Your task to perform on an android device: check google app version Image 0: 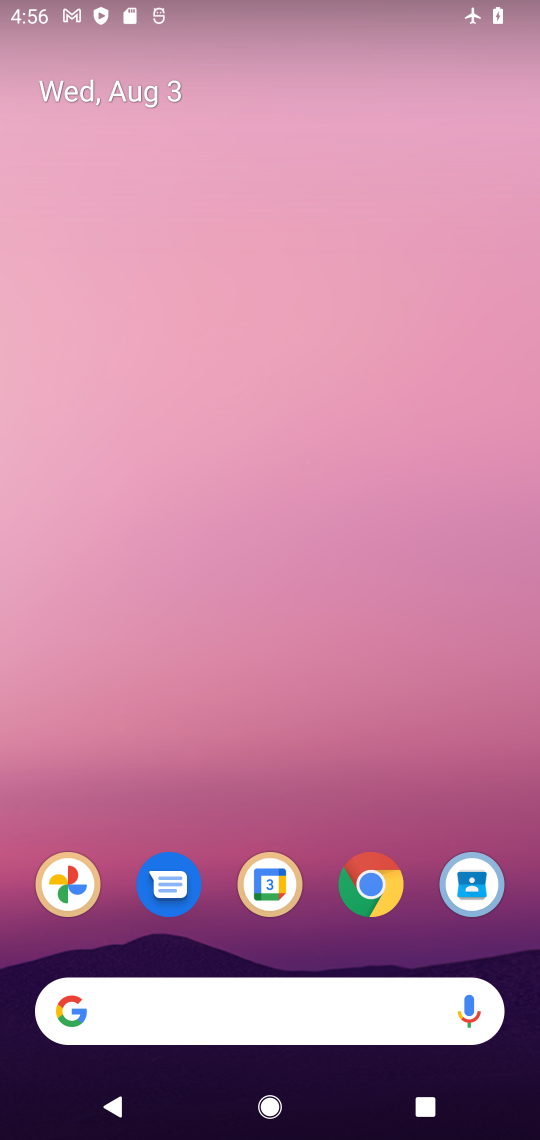
Step 0: drag from (252, 835) to (293, 1)
Your task to perform on an android device: check google app version Image 1: 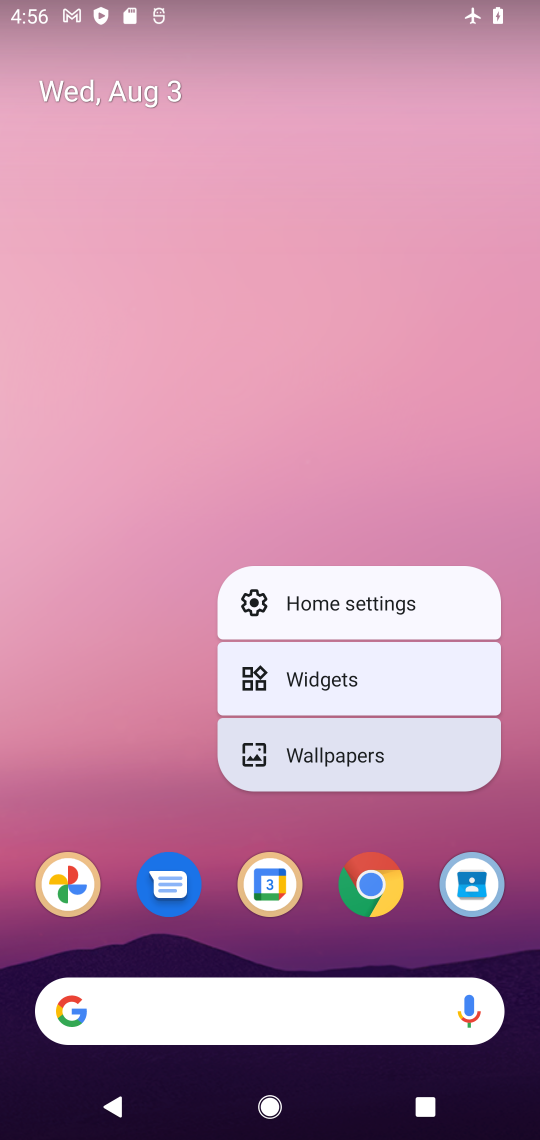
Step 1: click (66, 729)
Your task to perform on an android device: check google app version Image 2: 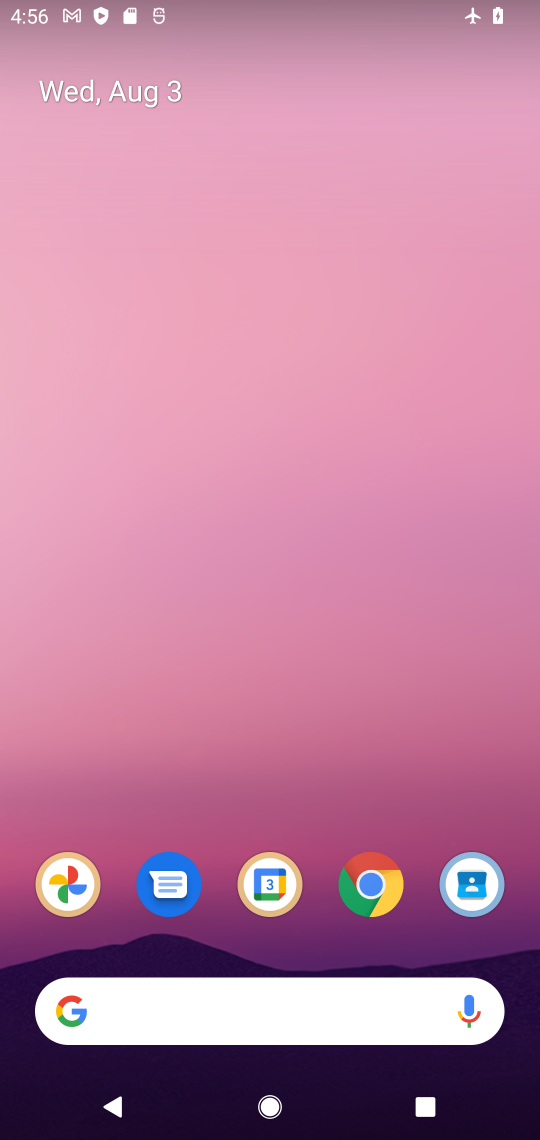
Step 2: drag from (300, 989) to (220, 99)
Your task to perform on an android device: check google app version Image 3: 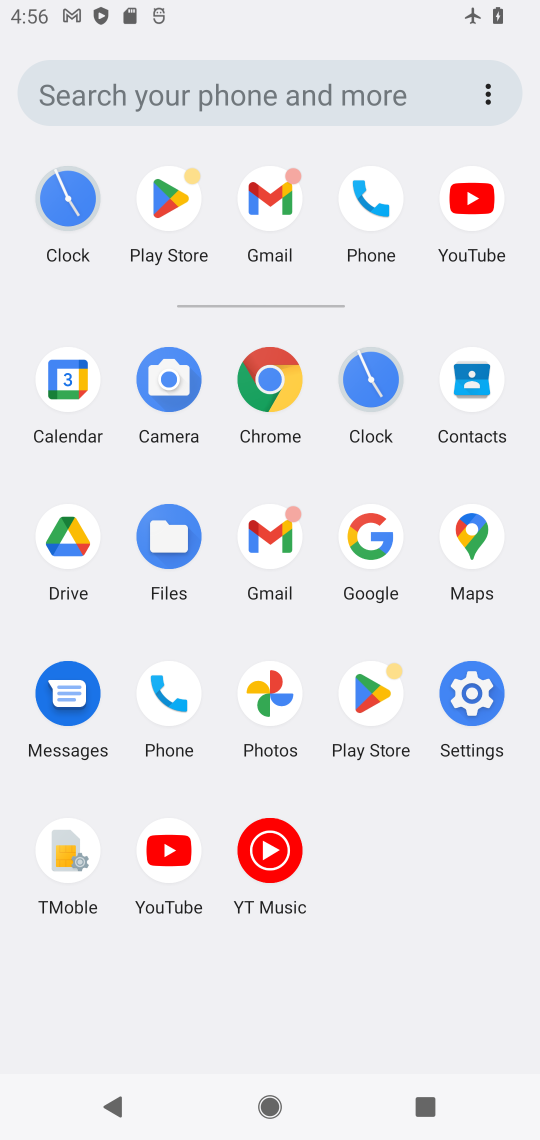
Step 3: click (369, 549)
Your task to perform on an android device: check google app version Image 4: 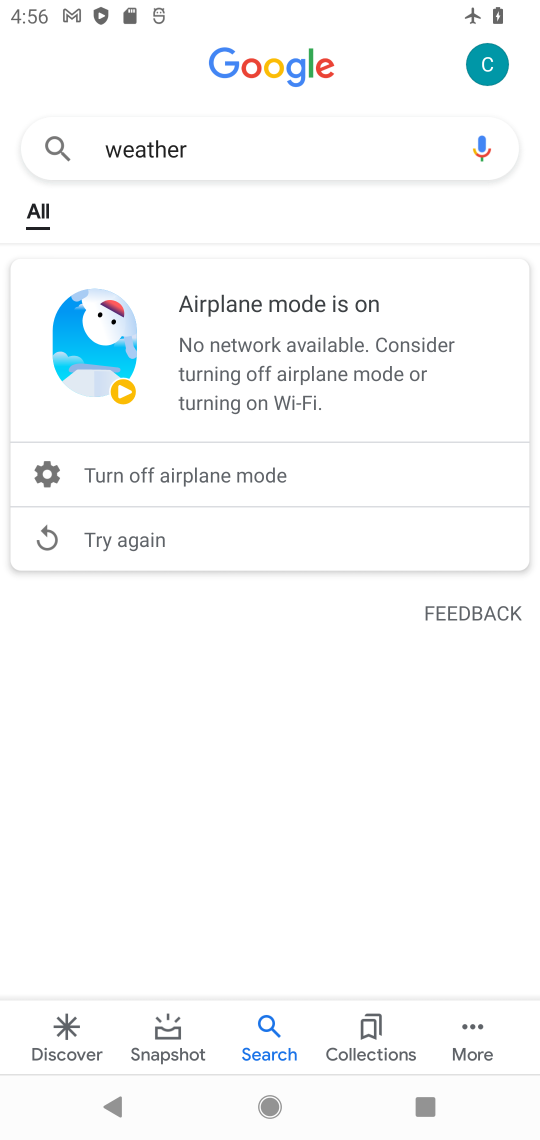
Step 4: click (473, 1051)
Your task to perform on an android device: check google app version Image 5: 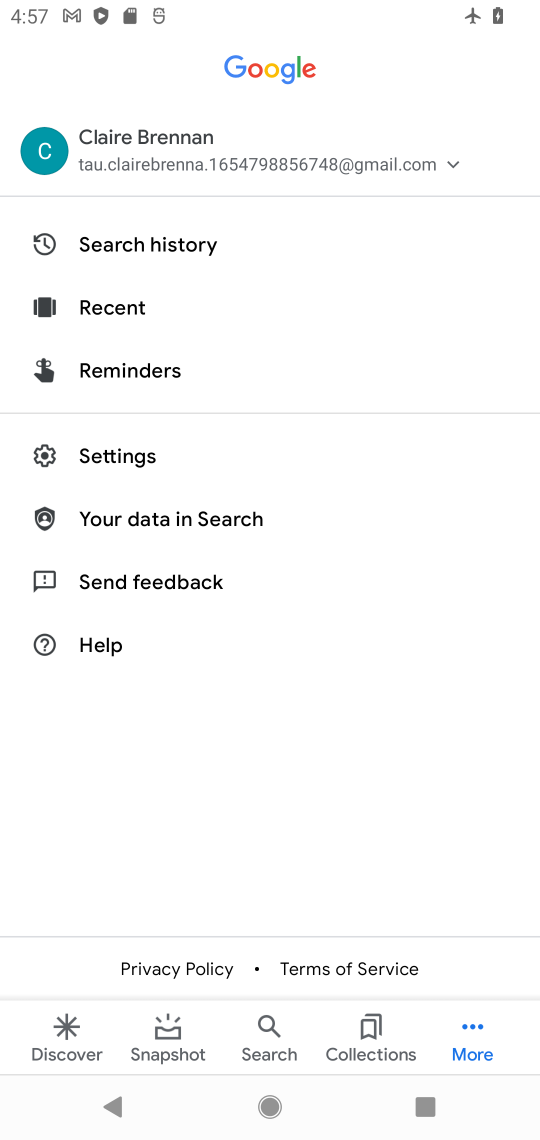
Step 5: click (120, 479)
Your task to perform on an android device: check google app version Image 6: 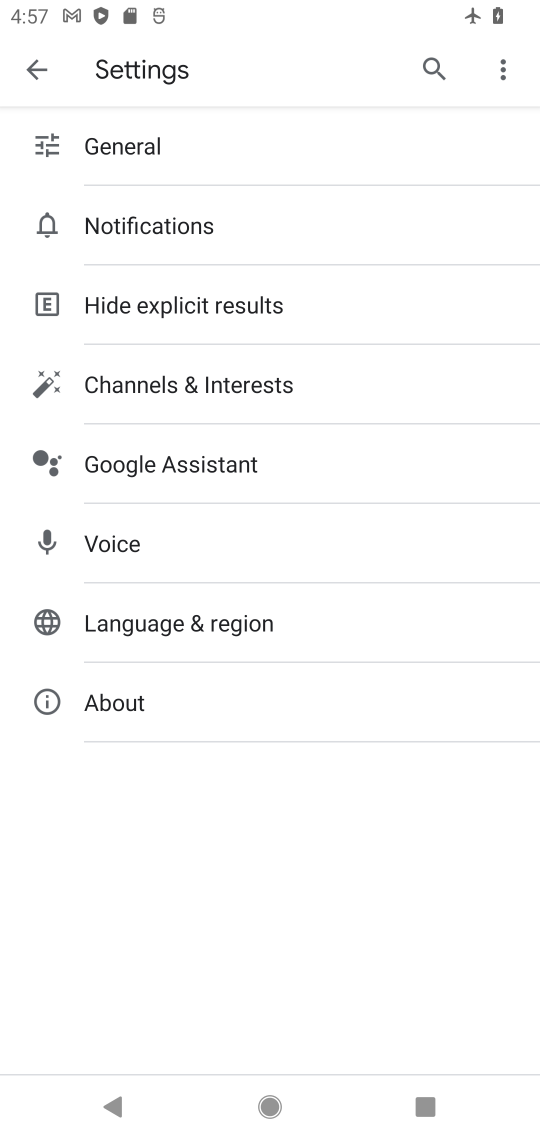
Step 6: click (174, 748)
Your task to perform on an android device: check google app version Image 7: 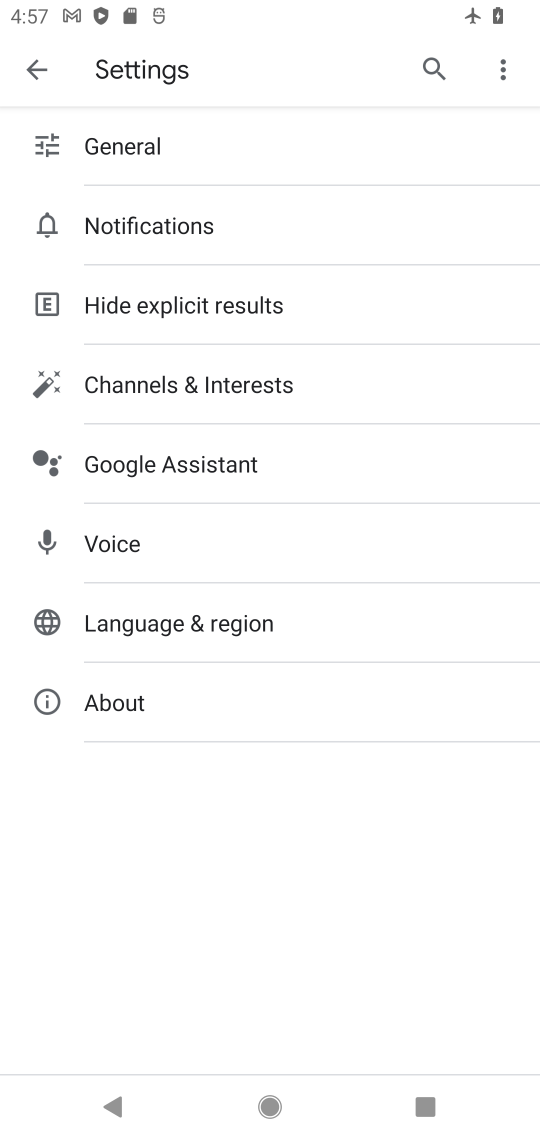
Step 7: click (174, 720)
Your task to perform on an android device: check google app version Image 8: 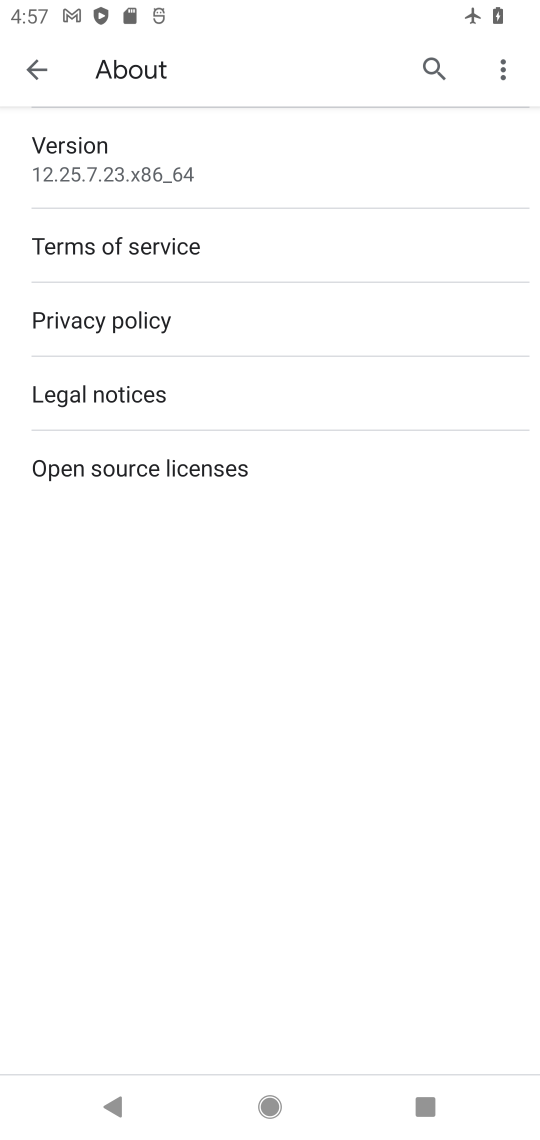
Step 8: click (205, 164)
Your task to perform on an android device: check google app version Image 9: 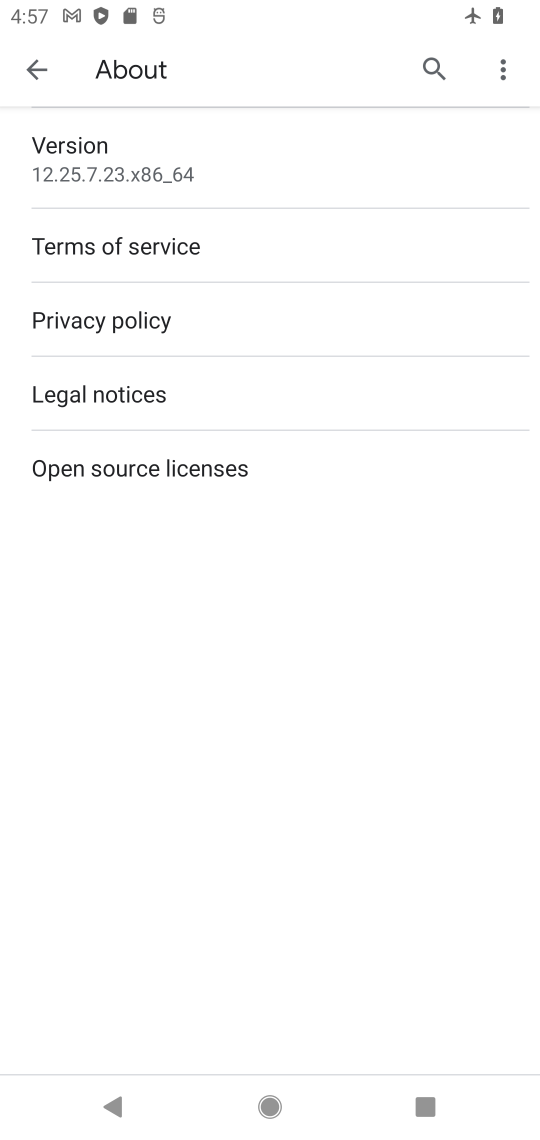
Step 9: task complete